Your task to perform on an android device: search for starred emails in the gmail app Image 0: 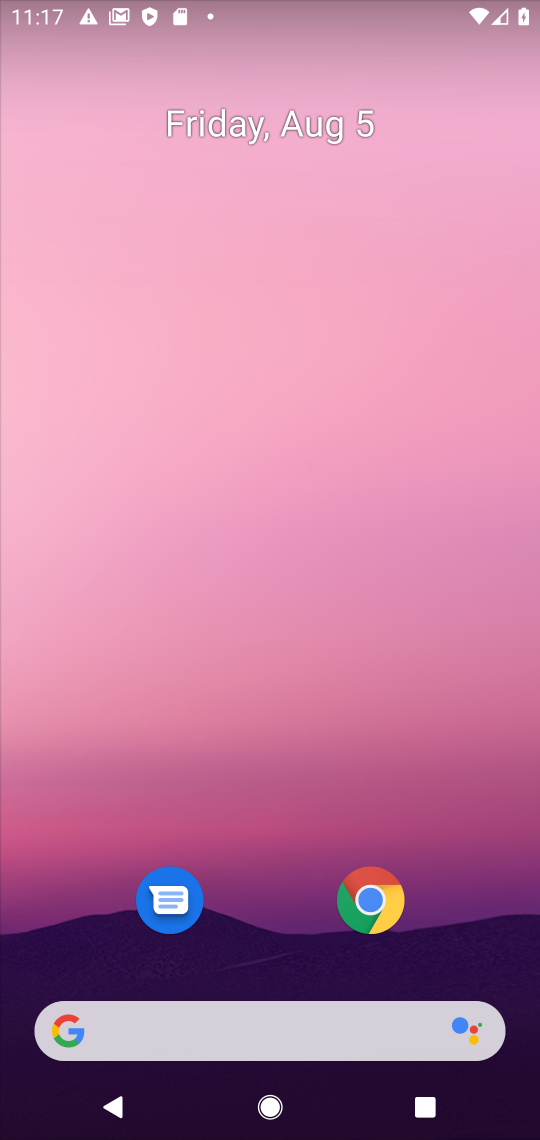
Step 0: drag from (268, 845) to (257, 4)
Your task to perform on an android device: search for starred emails in the gmail app Image 1: 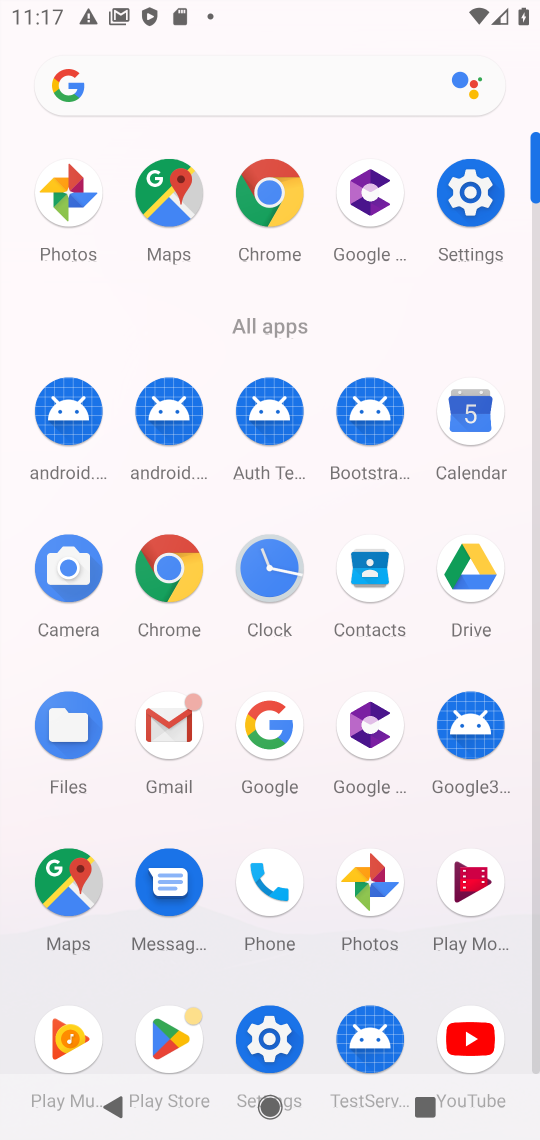
Step 1: click (168, 727)
Your task to perform on an android device: search for starred emails in the gmail app Image 2: 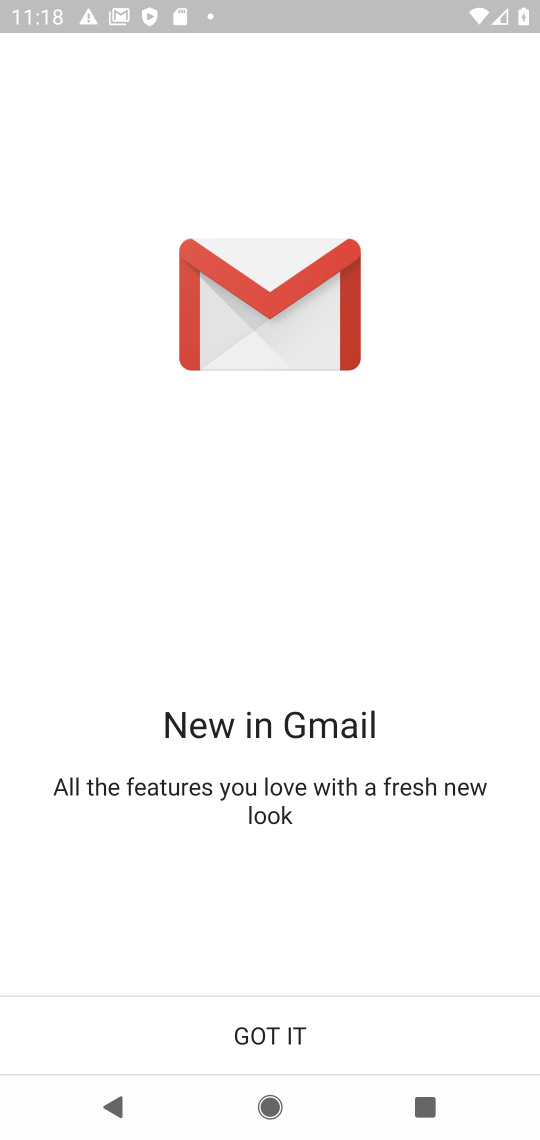
Step 2: click (259, 1041)
Your task to perform on an android device: search for starred emails in the gmail app Image 3: 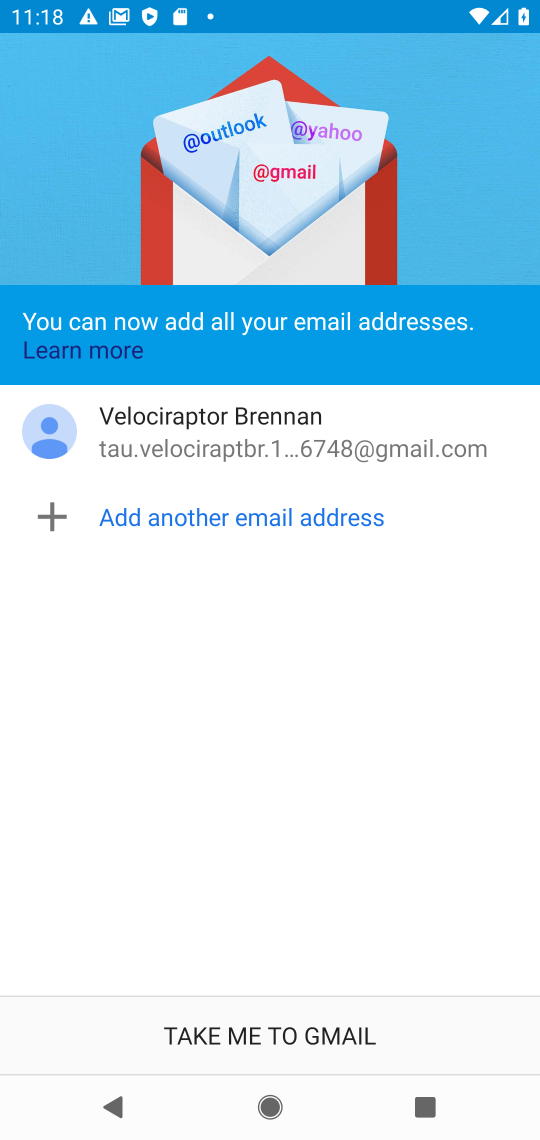
Step 3: click (260, 1038)
Your task to perform on an android device: search for starred emails in the gmail app Image 4: 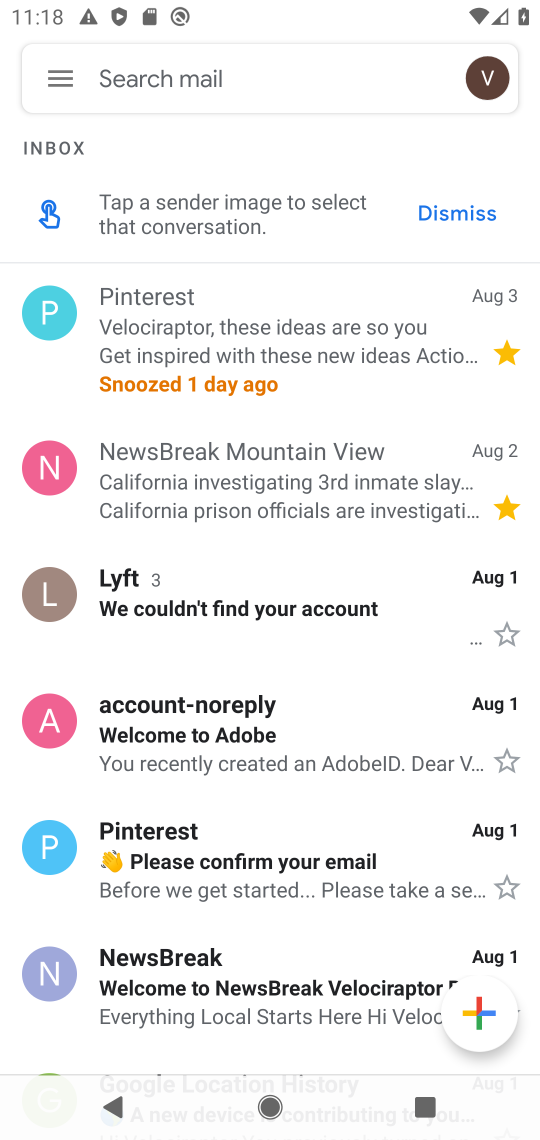
Step 4: click (55, 85)
Your task to perform on an android device: search for starred emails in the gmail app Image 5: 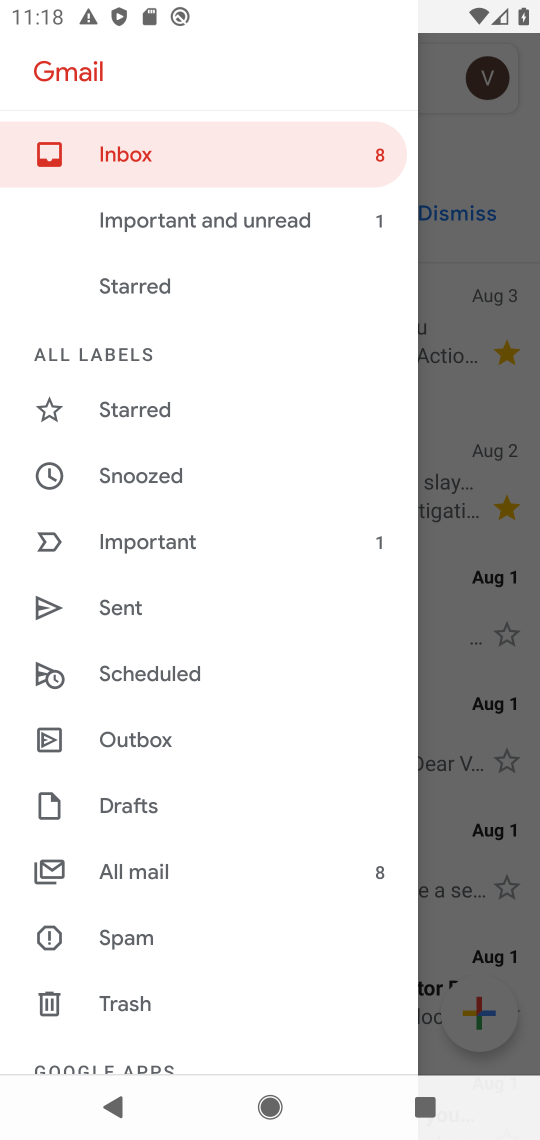
Step 5: click (129, 412)
Your task to perform on an android device: search for starred emails in the gmail app Image 6: 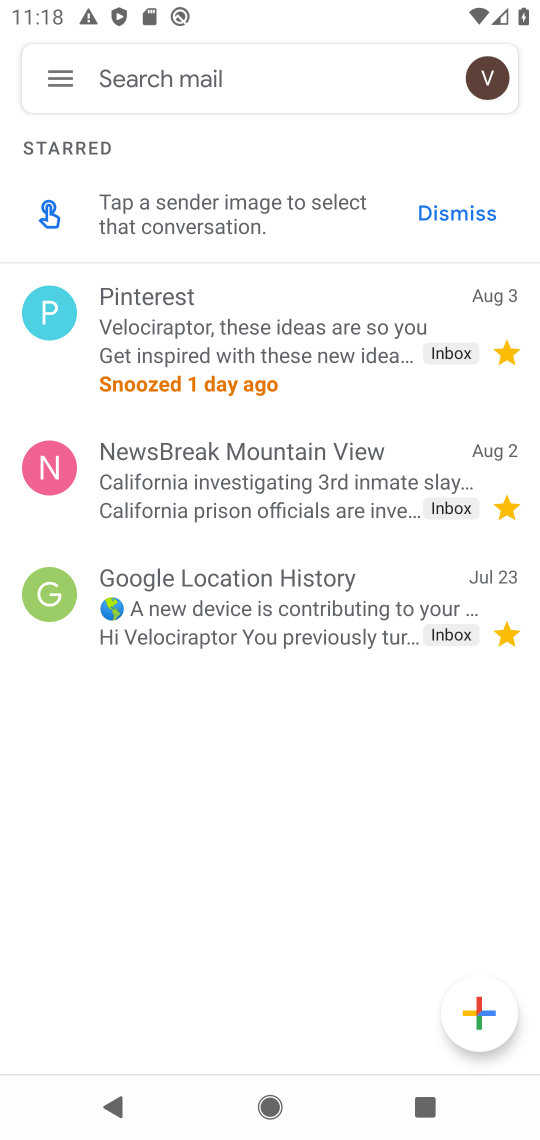
Step 6: task complete